Your task to perform on an android device: Set the phone to "Do not disturb". Image 0: 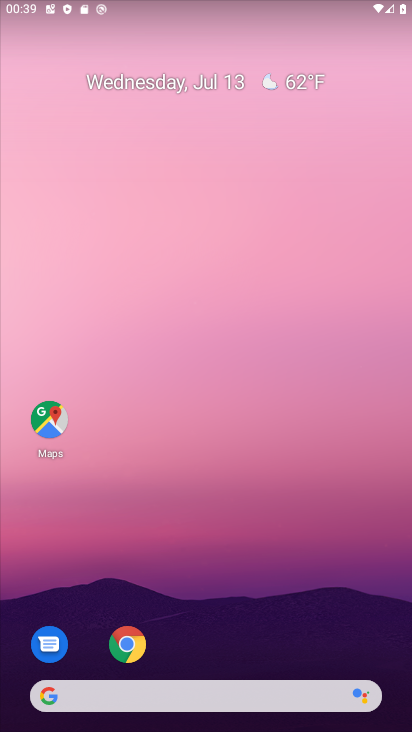
Step 0: drag from (253, 4) to (247, 346)
Your task to perform on an android device: Set the phone to "Do not disturb". Image 1: 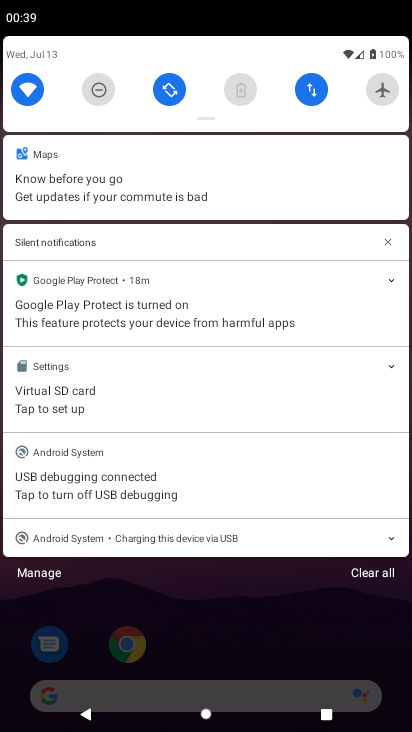
Step 1: click (101, 88)
Your task to perform on an android device: Set the phone to "Do not disturb". Image 2: 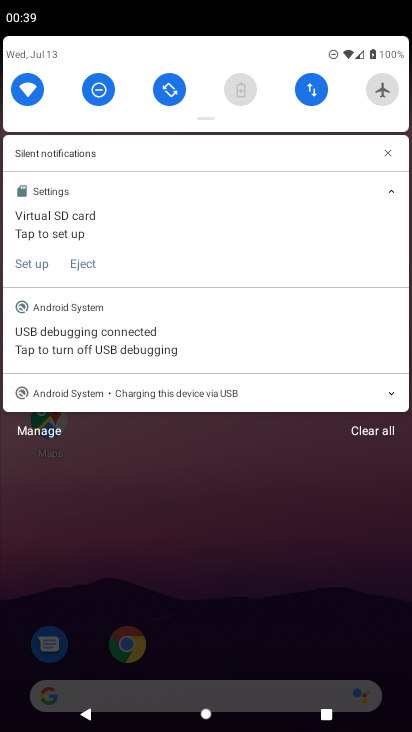
Step 2: task complete